Your task to perform on an android device: What's the weather today? Image 0: 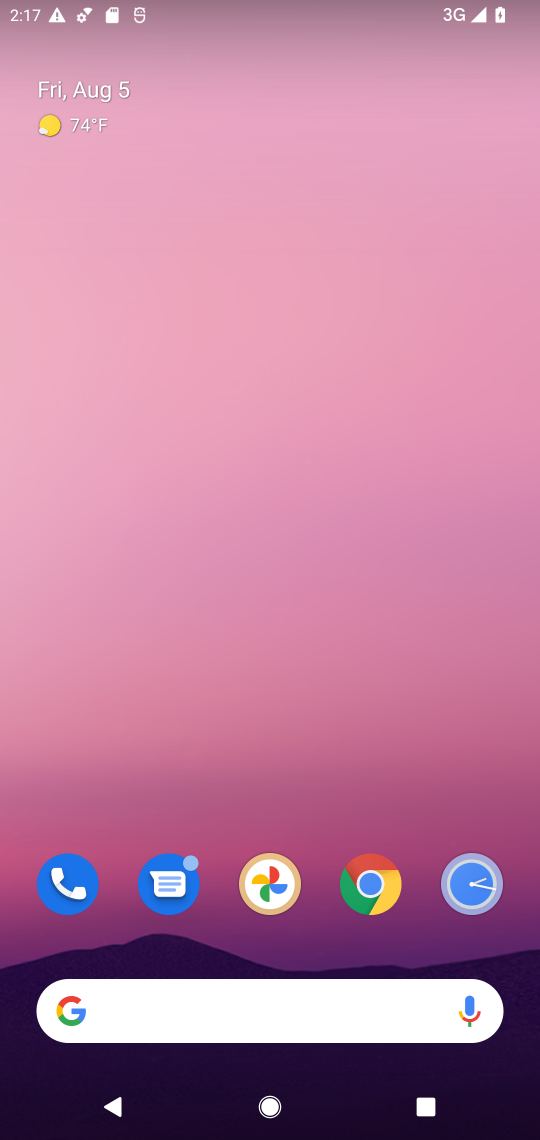
Step 0: drag from (412, 936) to (336, 90)
Your task to perform on an android device: What's the weather today? Image 1: 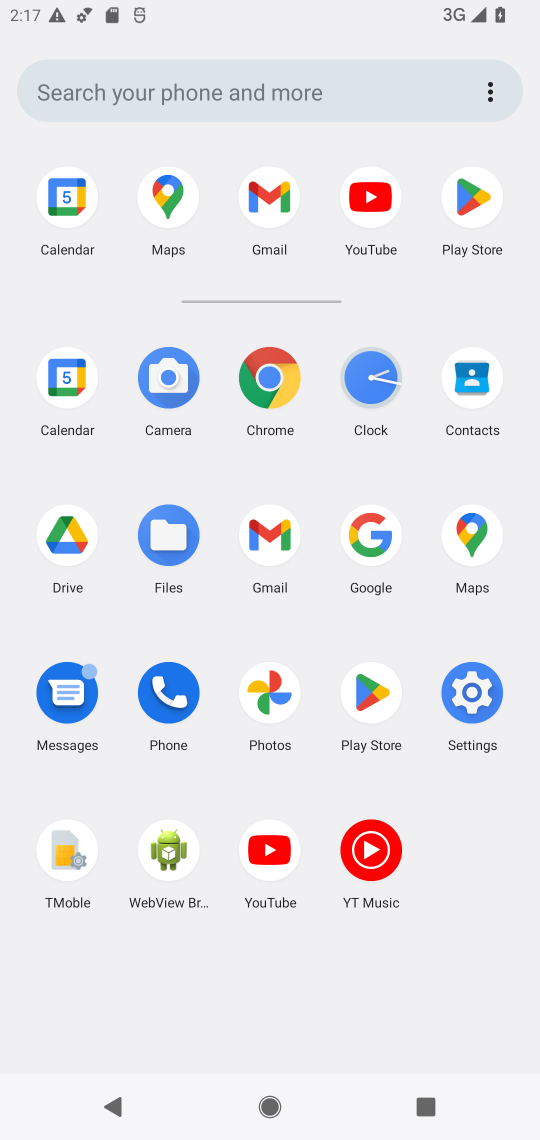
Step 1: click (376, 541)
Your task to perform on an android device: What's the weather today? Image 2: 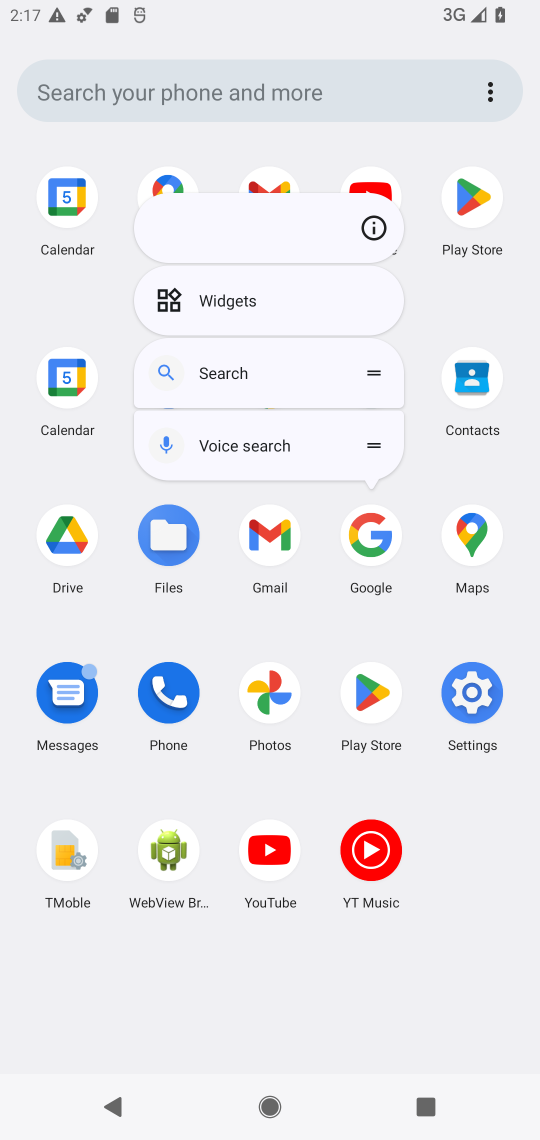
Step 2: click (376, 541)
Your task to perform on an android device: What's the weather today? Image 3: 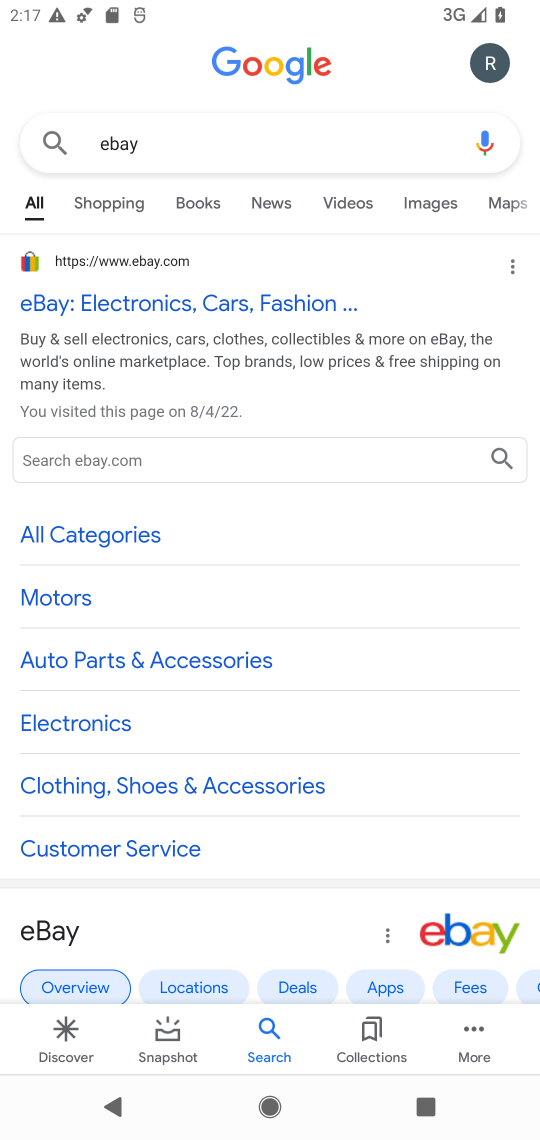
Step 3: press back button
Your task to perform on an android device: What's the weather today? Image 4: 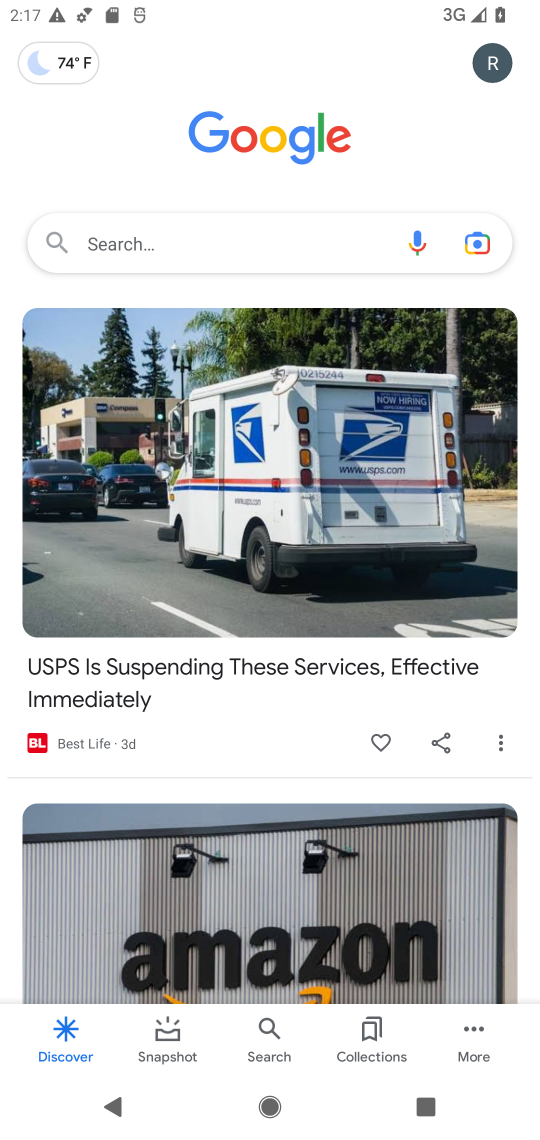
Step 4: click (134, 254)
Your task to perform on an android device: What's the weather today? Image 5: 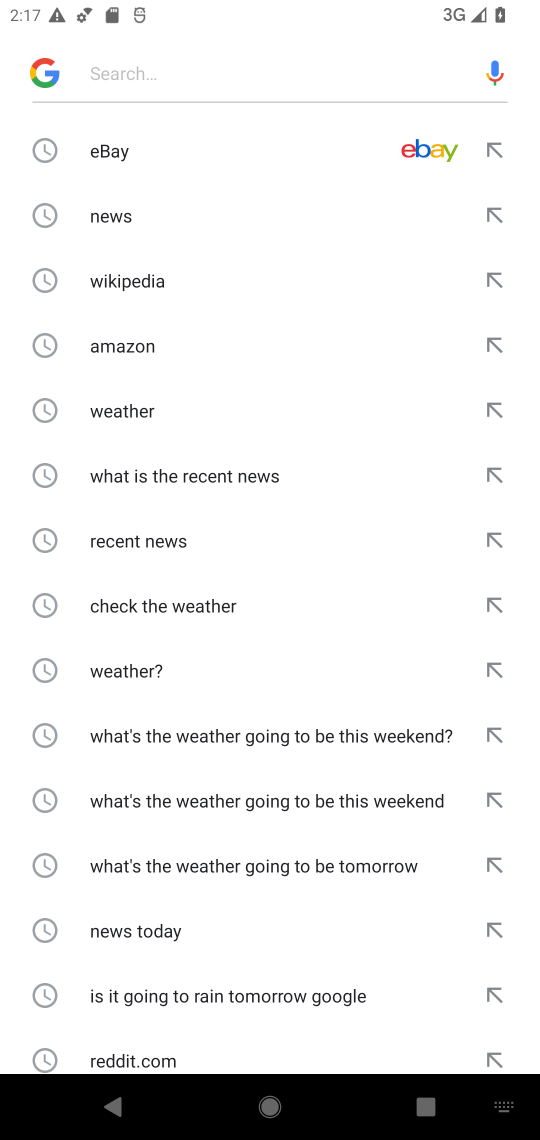
Step 5: type "What's the weather today?"
Your task to perform on an android device: What's the weather today? Image 6: 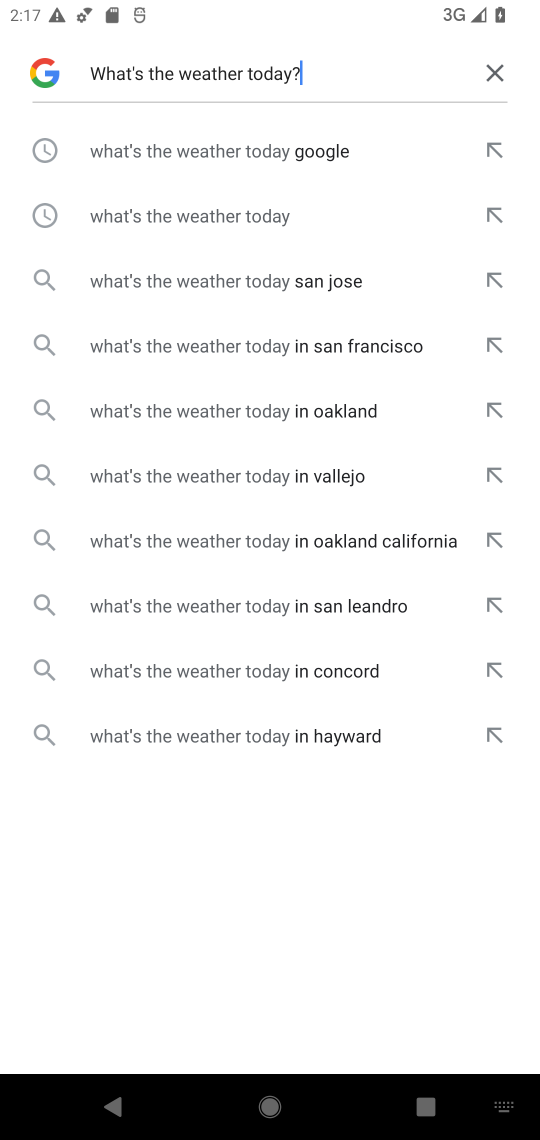
Step 6: click (279, 169)
Your task to perform on an android device: What's the weather today? Image 7: 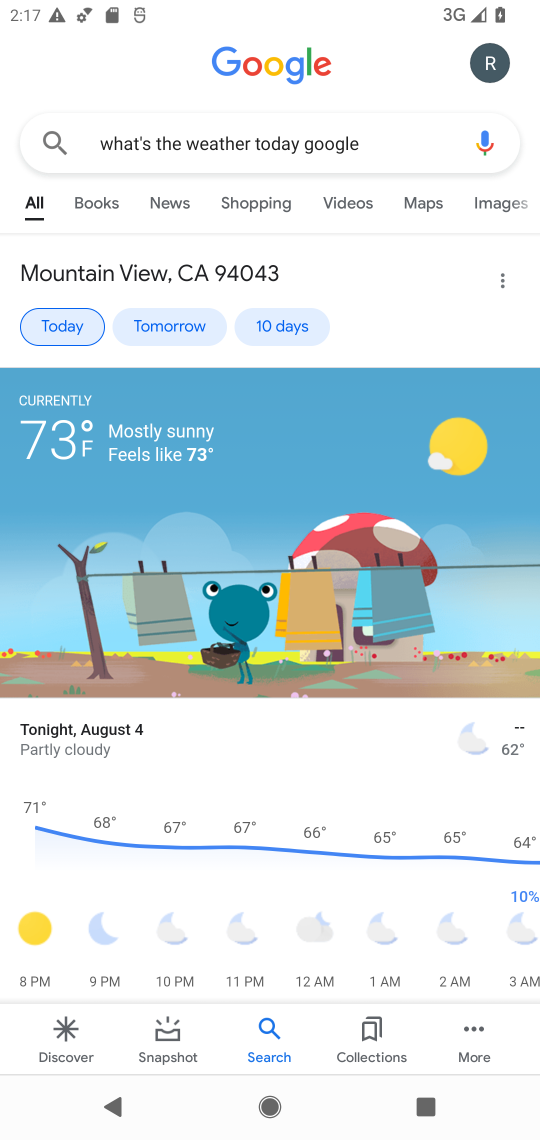
Step 7: task complete